Your task to perform on an android device: Go to Google maps Image 0: 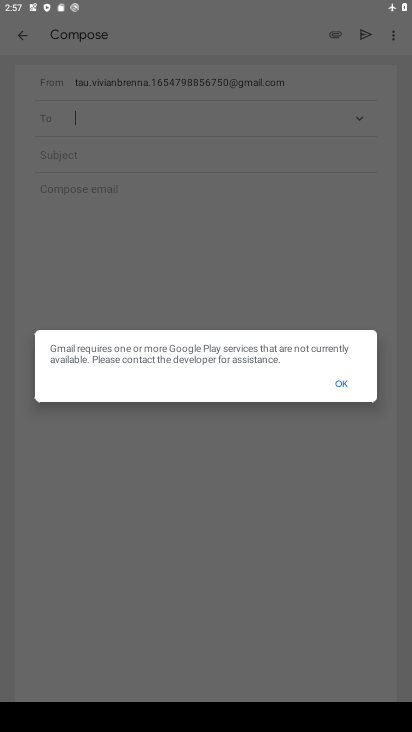
Step 0: press home button
Your task to perform on an android device: Go to Google maps Image 1: 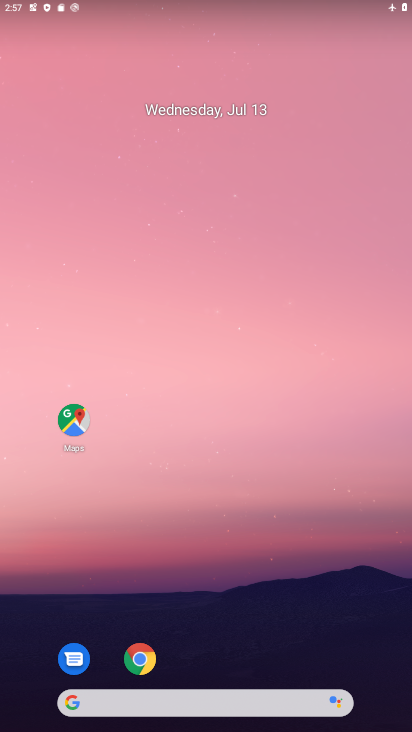
Step 1: click (72, 420)
Your task to perform on an android device: Go to Google maps Image 2: 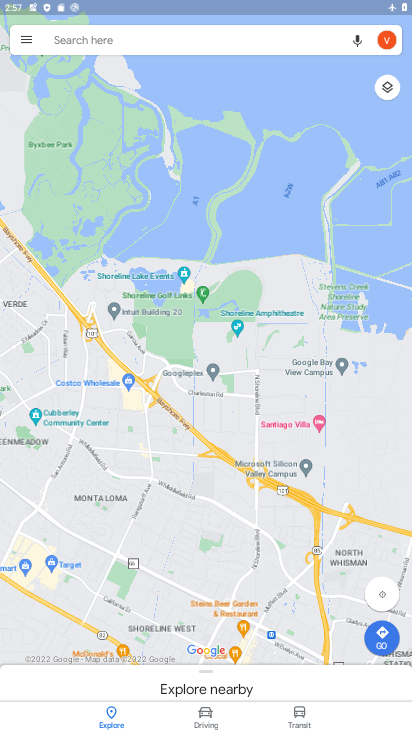
Step 2: task complete